Your task to perform on an android device: toggle javascript in the chrome app Image 0: 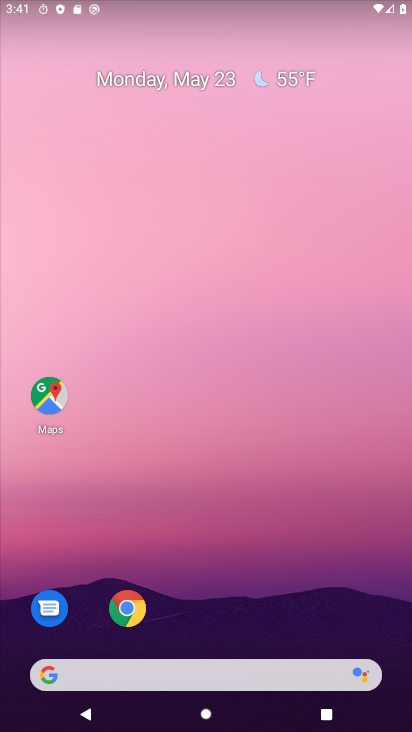
Step 0: press home button
Your task to perform on an android device: toggle javascript in the chrome app Image 1: 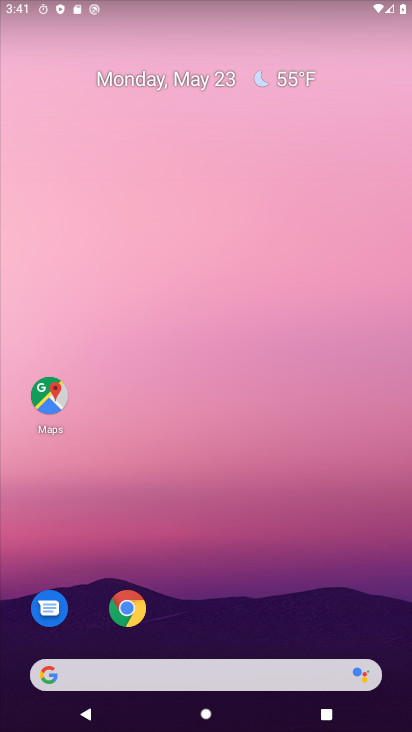
Step 1: click (123, 605)
Your task to perform on an android device: toggle javascript in the chrome app Image 2: 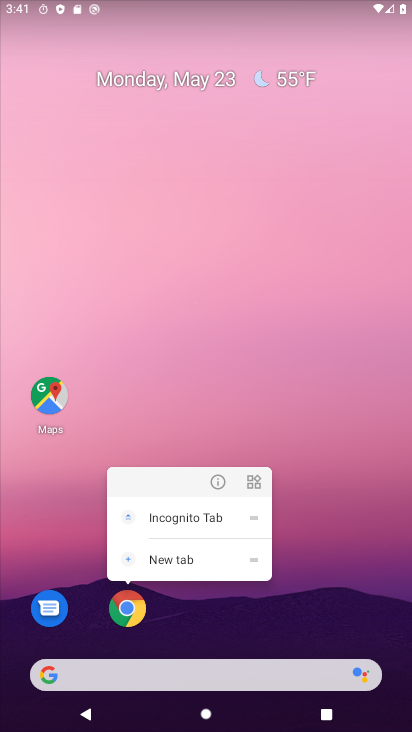
Step 2: click (129, 609)
Your task to perform on an android device: toggle javascript in the chrome app Image 3: 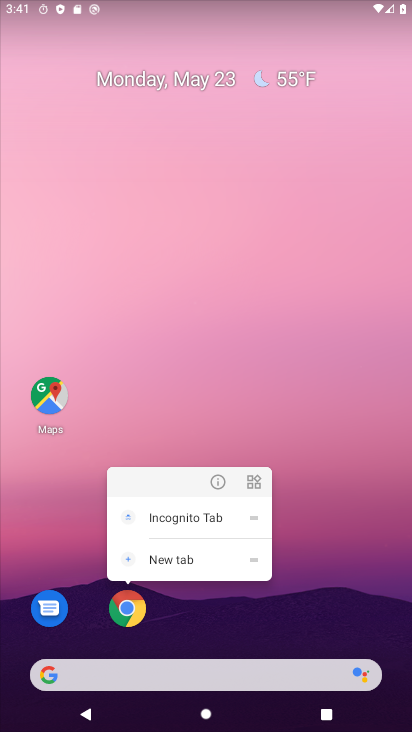
Step 3: click (131, 604)
Your task to perform on an android device: toggle javascript in the chrome app Image 4: 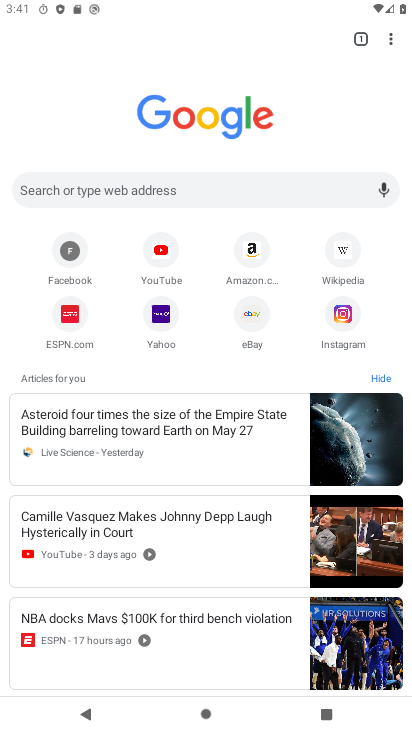
Step 4: click (390, 39)
Your task to perform on an android device: toggle javascript in the chrome app Image 5: 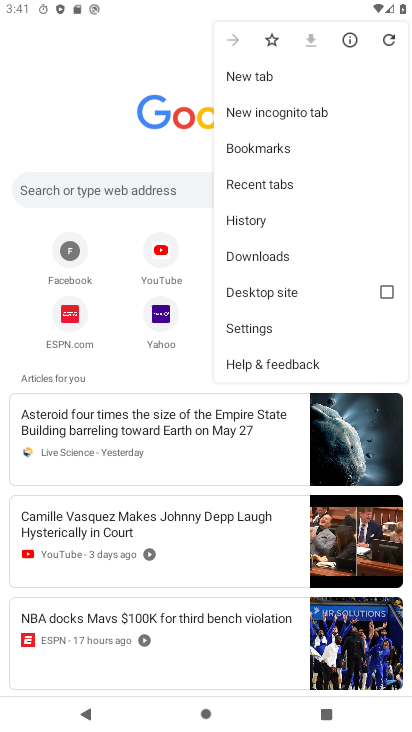
Step 5: click (245, 326)
Your task to perform on an android device: toggle javascript in the chrome app Image 6: 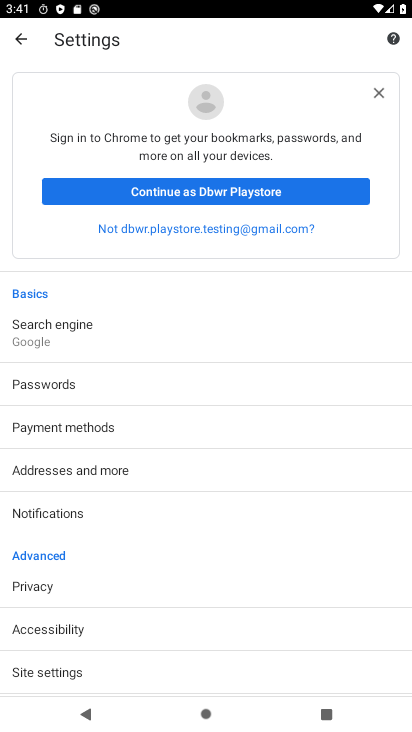
Step 6: click (47, 670)
Your task to perform on an android device: toggle javascript in the chrome app Image 7: 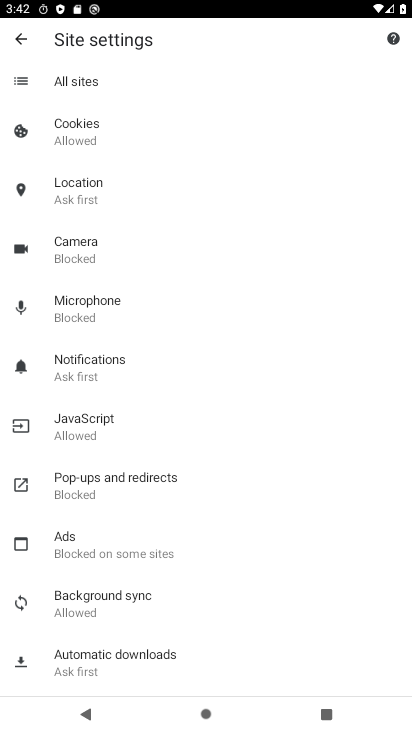
Step 7: drag from (52, 432) to (215, 157)
Your task to perform on an android device: toggle javascript in the chrome app Image 8: 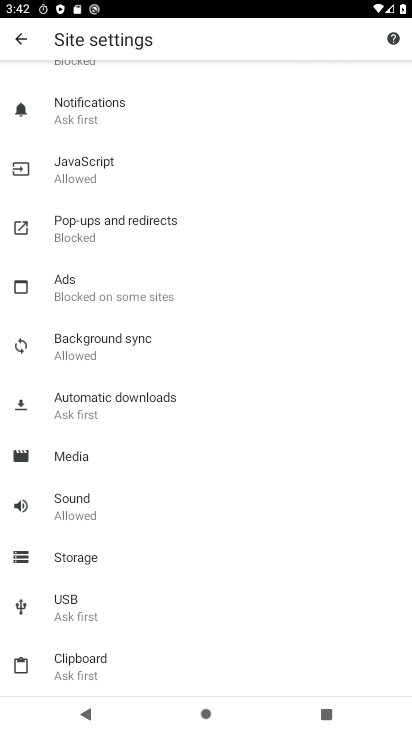
Step 8: click (83, 173)
Your task to perform on an android device: toggle javascript in the chrome app Image 9: 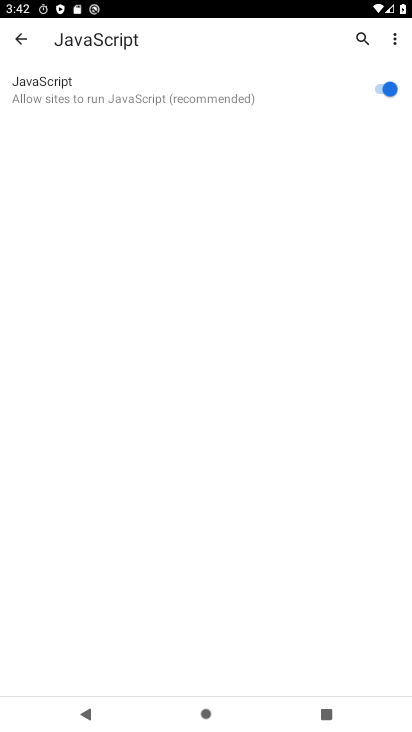
Step 9: click (392, 93)
Your task to perform on an android device: toggle javascript in the chrome app Image 10: 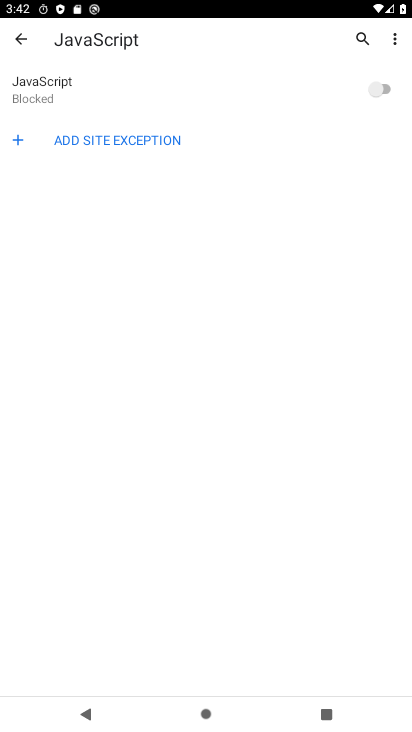
Step 10: task complete